Your task to perform on an android device: Open Google Image 0: 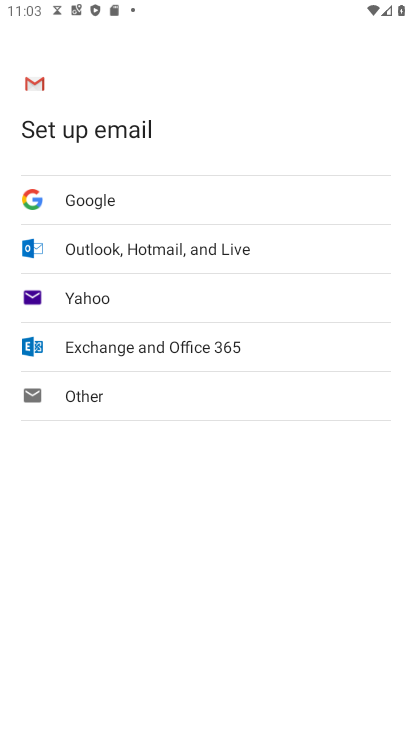
Step 0: press home button
Your task to perform on an android device: Open Google Image 1: 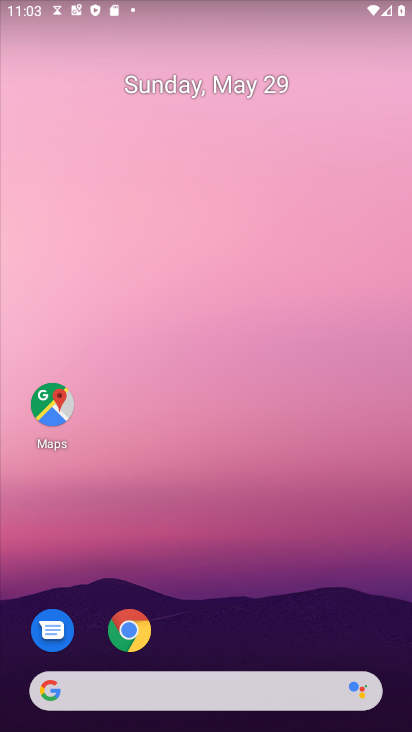
Step 1: click (130, 688)
Your task to perform on an android device: Open Google Image 2: 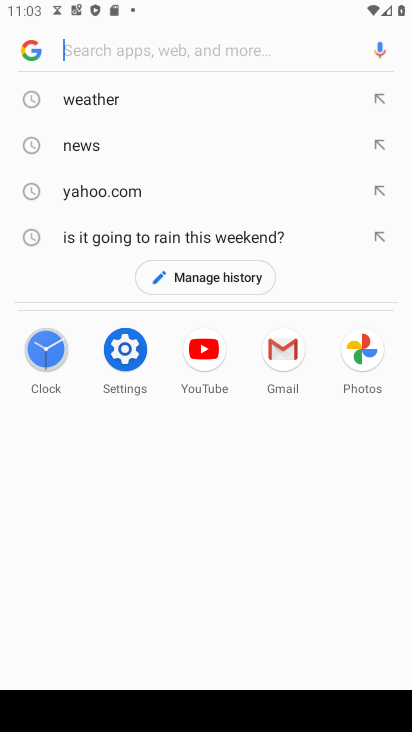
Step 2: task complete